Your task to perform on an android device: turn on data saver in the chrome app Image 0: 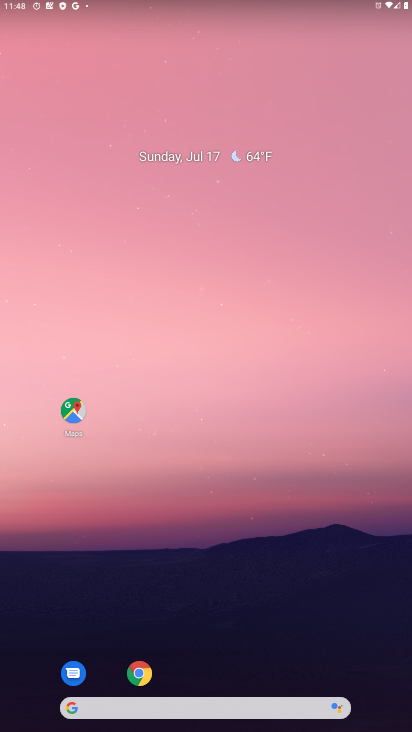
Step 0: drag from (201, 678) to (180, 250)
Your task to perform on an android device: turn on data saver in the chrome app Image 1: 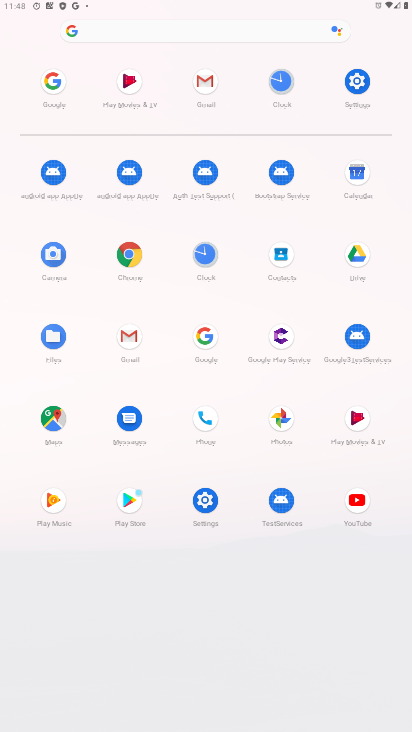
Step 1: click (126, 253)
Your task to perform on an android device: turn on data saver in the chrome app Image 2: 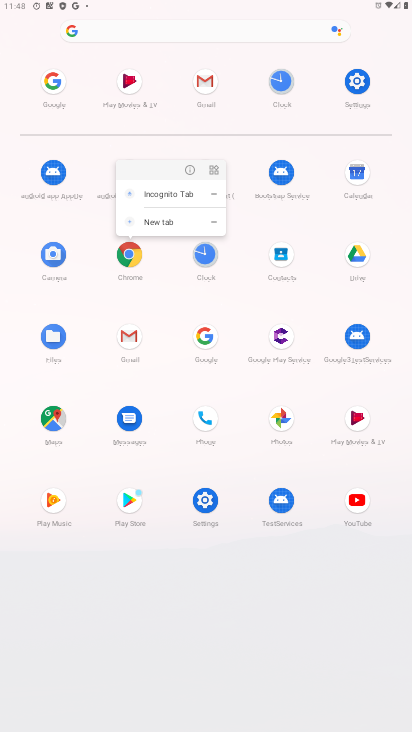
Step 2: click (135, 260)
Your task to perform on an android device: turn on data saver in the chrome app Image 3: 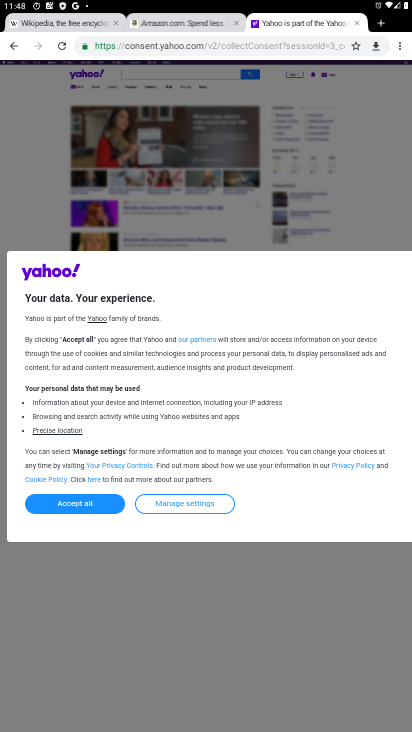
Step 3: click (395, 49)
Your task to perform on an android device: turn on data saver in the chrome app Image 4: 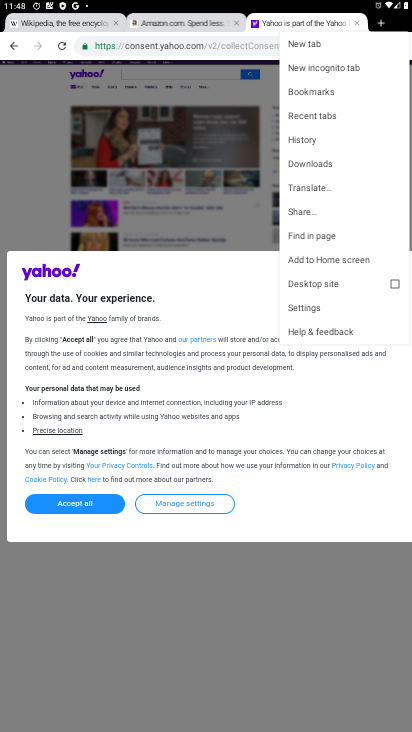
Step 4: click (328, 308)
Your task to perform on an android device: turn on data saver in the chrome app Image 5: 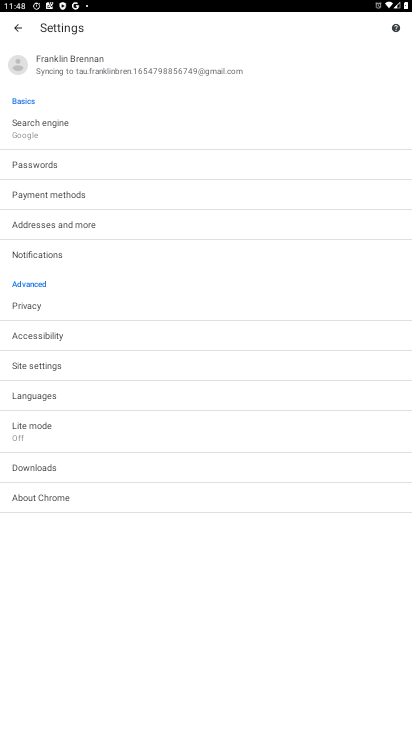
Step 5: click (53, 431)
Your task to perform on an android device: turn on data saver in the chrome app Image 6: 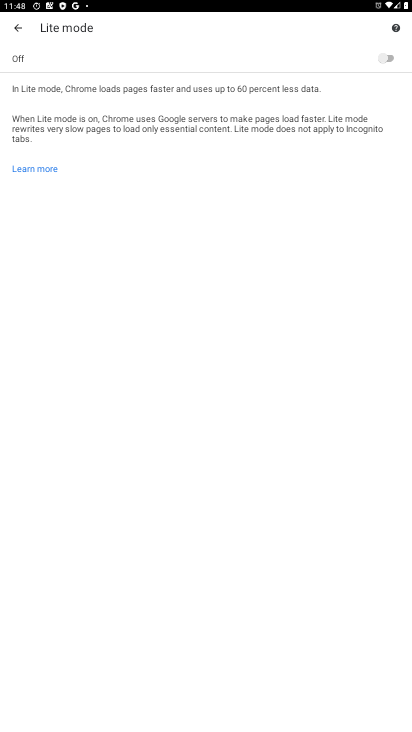
Step 6: click (383, 41)
Your task to perform on an android device: turn on data saver in the chrome app Image 7: 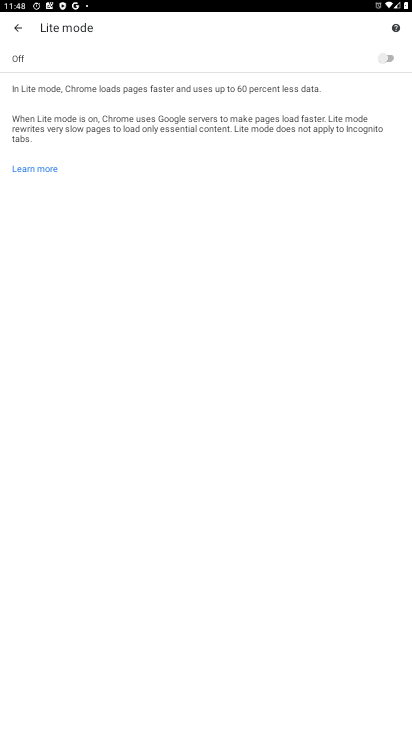
Step 7: click (387, 60)
Your task to perform on an android device: turn on data saver in the chrome app Image 8: 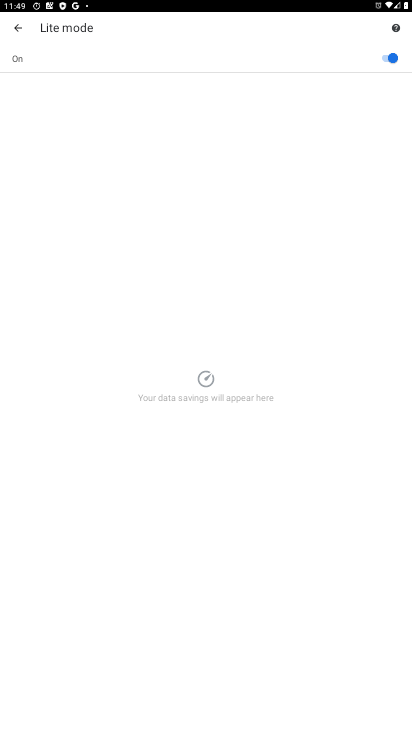
Step 8: task complete